Your task to perform on an android device: Add razer nari to the cart on costco Image 0: 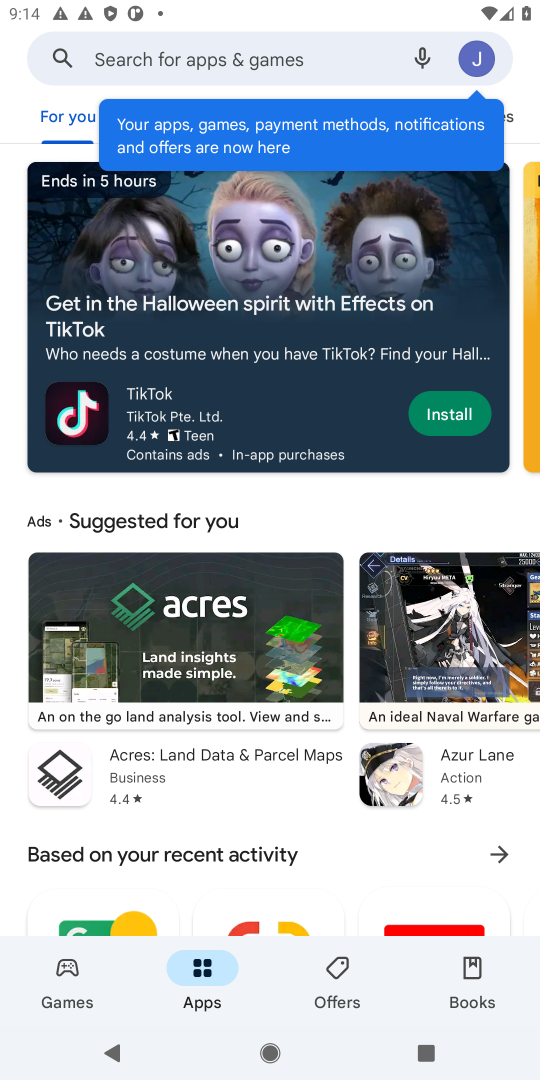
Step 0: press home button
Your task to perform on an android device: Add razer nari to the cart on costco Image 1: 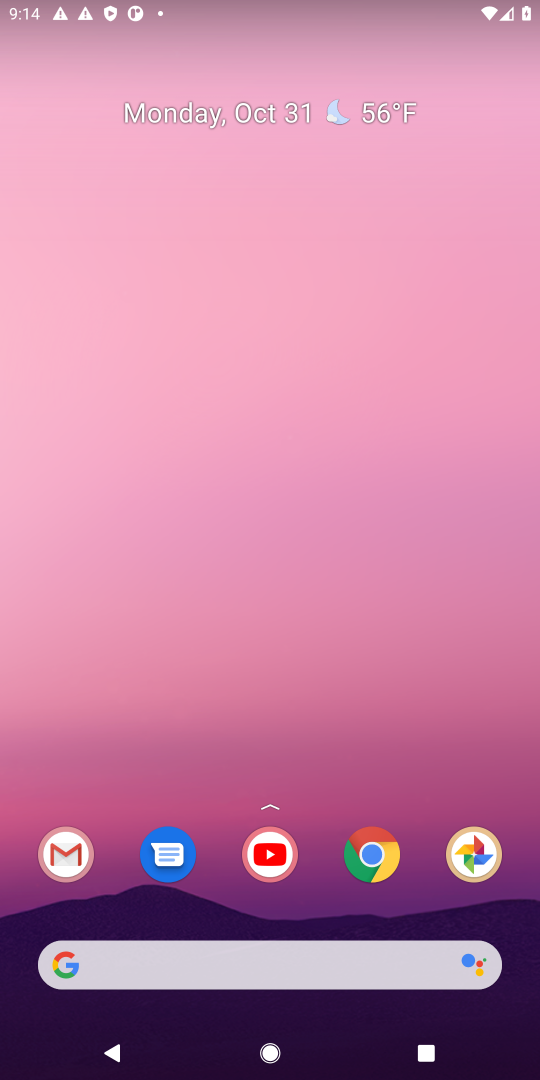
Step 1: click (222, 955)
Your task to perform on an android device: Add razer nari to the cart on costco Image 2: 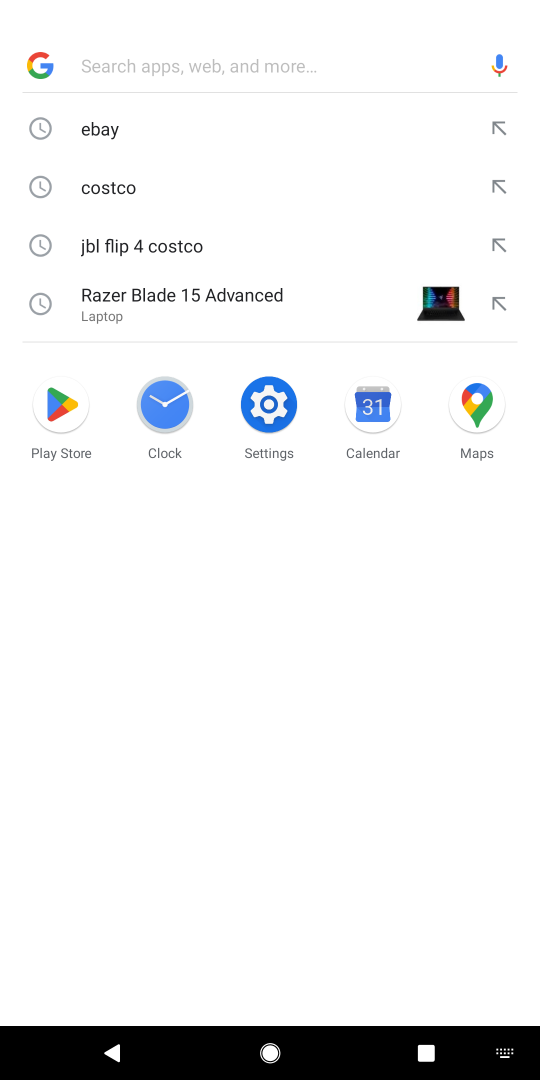
Step 2: type "razer  cootco"
Your task to perform on an android device: Add razer nari to the cart on costco Image 3: 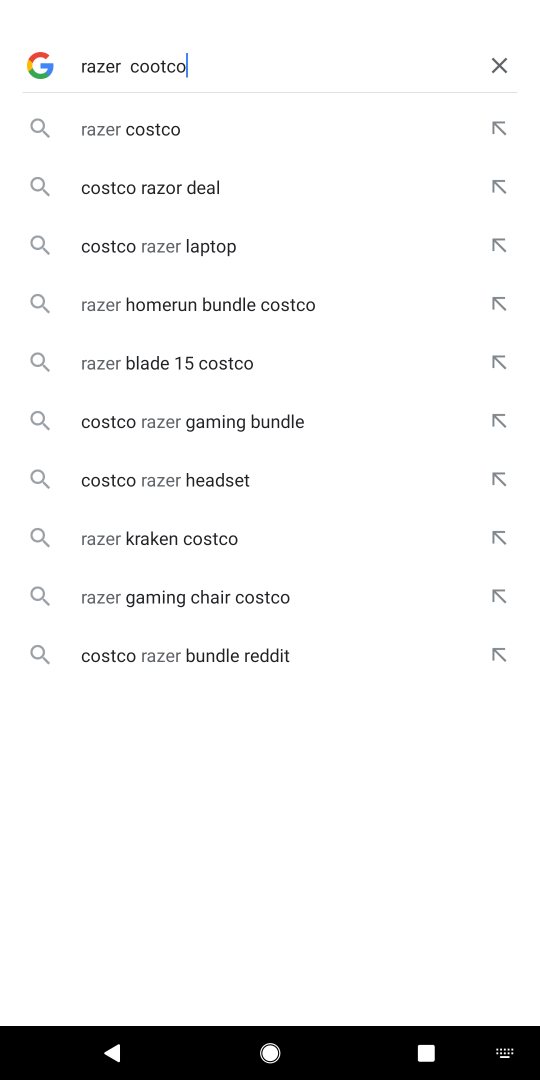
Step 3: click (135, 113)
Your task to perform on an android device: Add razer nari to the cart on costco Image 4: 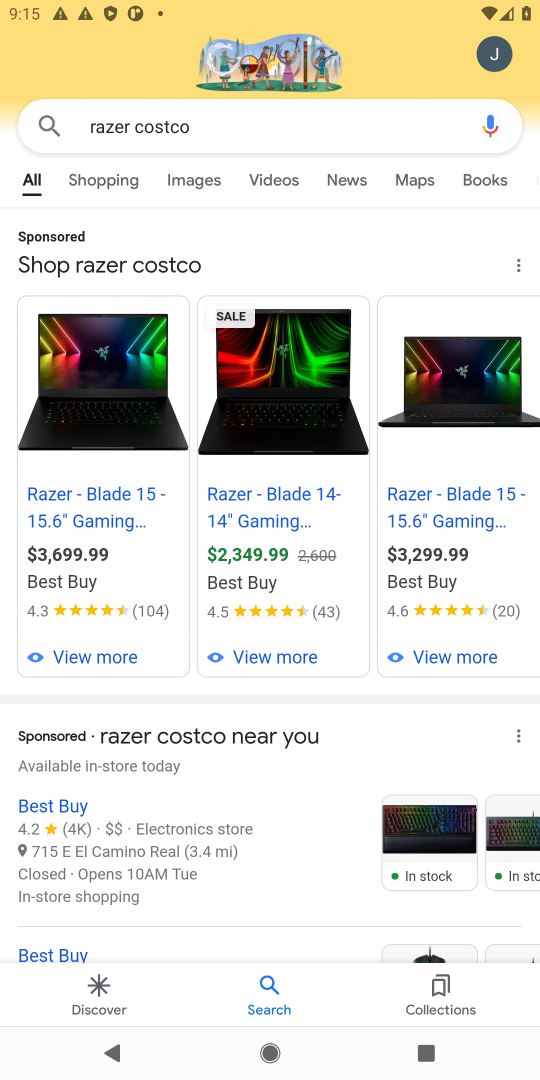
Step 4: click (99, 518)
Your task to perform on an android device: Add razer nari to the cart on costco Image 5: 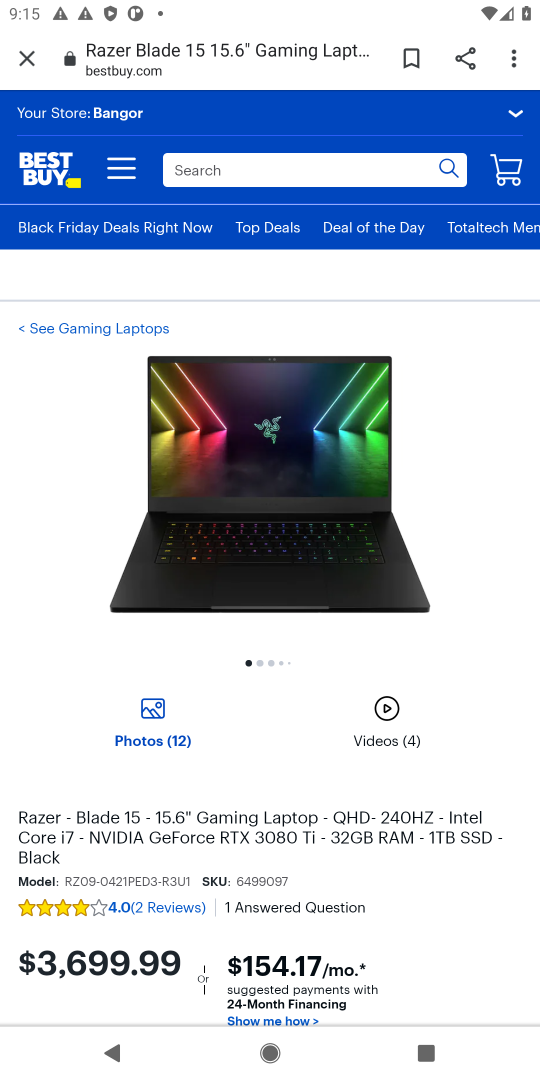
Step 5: drag from (452, 886) to (429, 473)
Your task to perform on an android device: Add razer nari to the cart on costco Image 6: 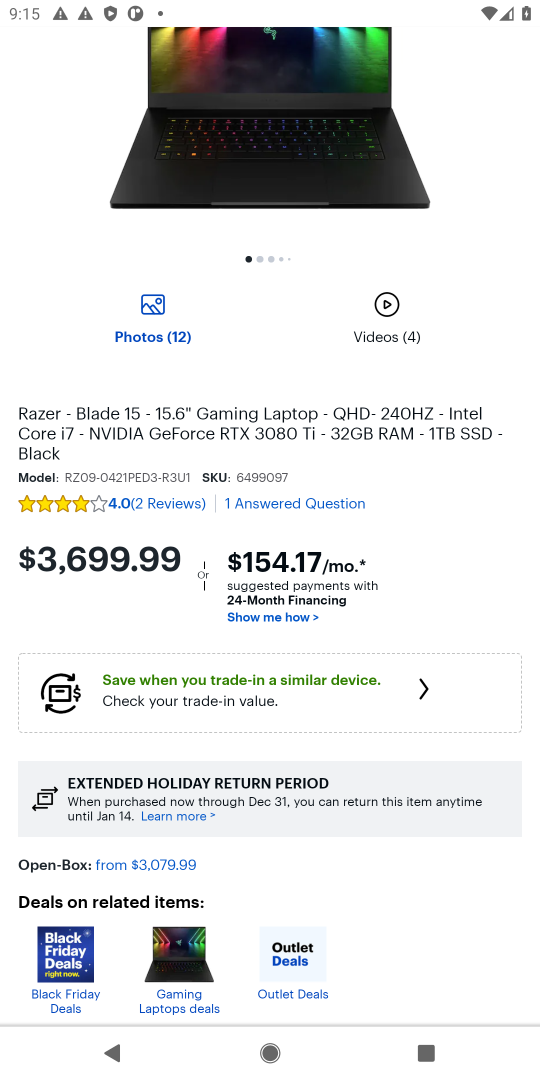
Step 6: drag from (373, 878) to (359, 266)
Your task to perform on an android device: Add razer nari to the cart on costco Image 7: 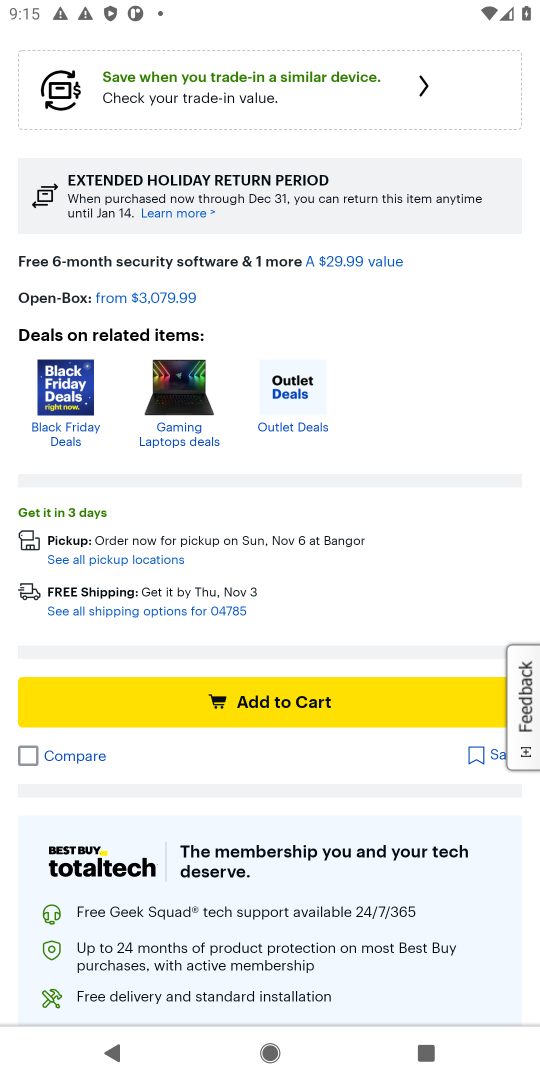
Step 7: click (327, 704)
Your task to perform on an android device: Add razer nari to the cart on costco Image 8: 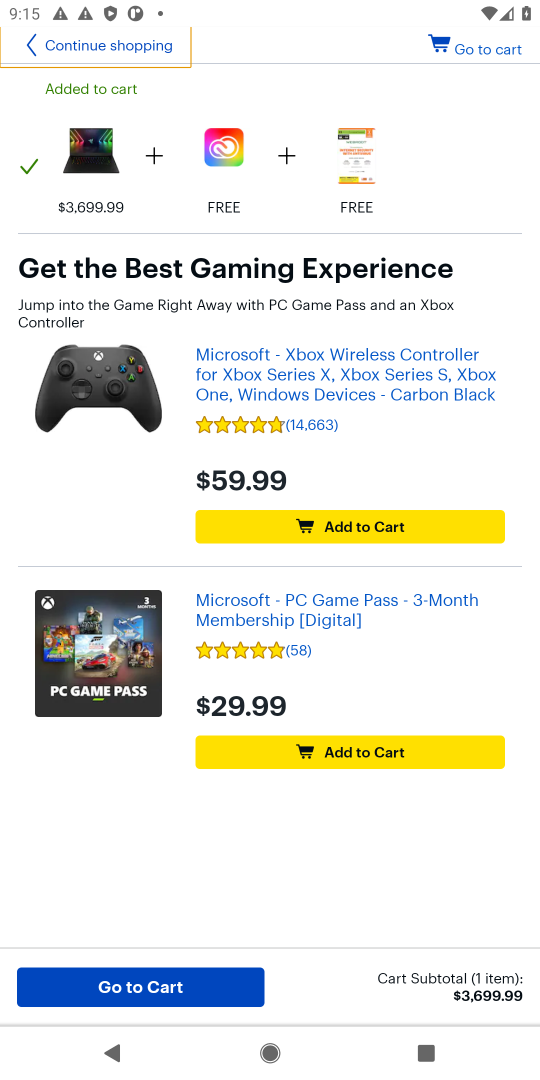
Step 8: task complete